Your task to perform on an android device: turn off javascript in the chrome app Image 0: 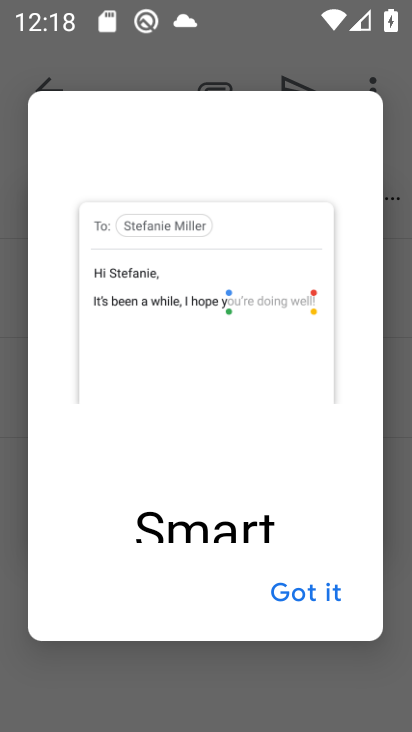
Step 0: press home button
Your task to perform on an android device: turn off javascript in the chrome app Image 1: 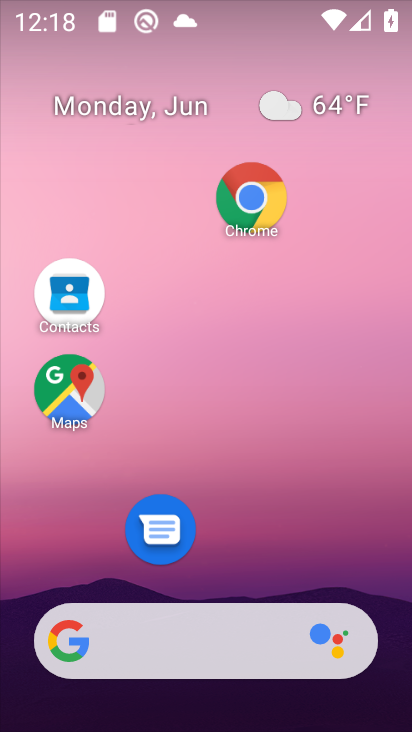
Step 1: click (246, 197)
Your task to perform on an android device: turn off javascript in the chrome app Image 2: 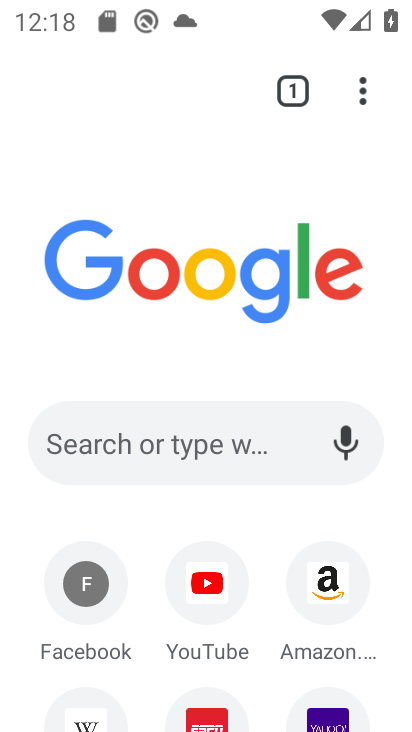
Step 2: click (353, 84)
Your task to perform on an android device: turn off javascript in the chrome app Image 3: 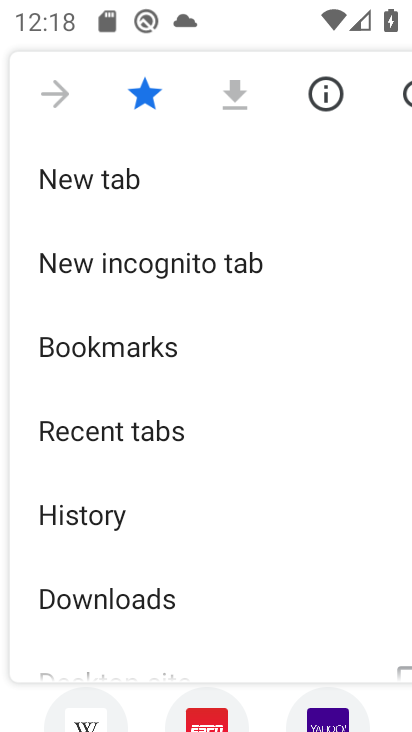
Step 3: drag from (222, 563) to (259, 93)
Your task to perform on an android device: turn off javascript in the chrome app Image 4: 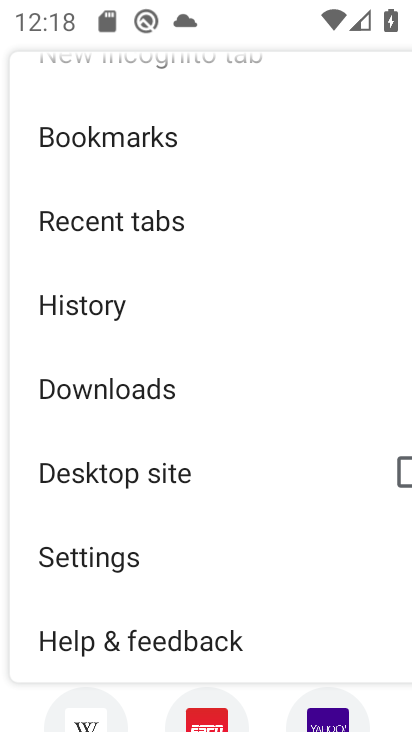
Step 4: click (77, 542)
Your task to perform on an android device: turn off javascript in the chrome app Image 5: 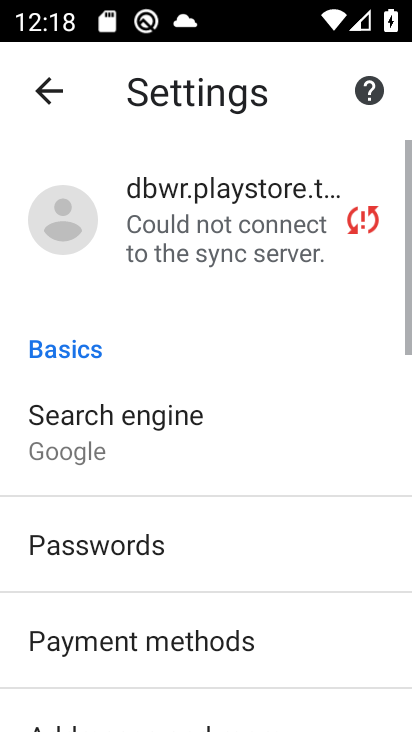
Step 5: drag from (188, 602) to (272, 233)
Your task to perform on an android device: turn off javascript in the chrome app Image 6: 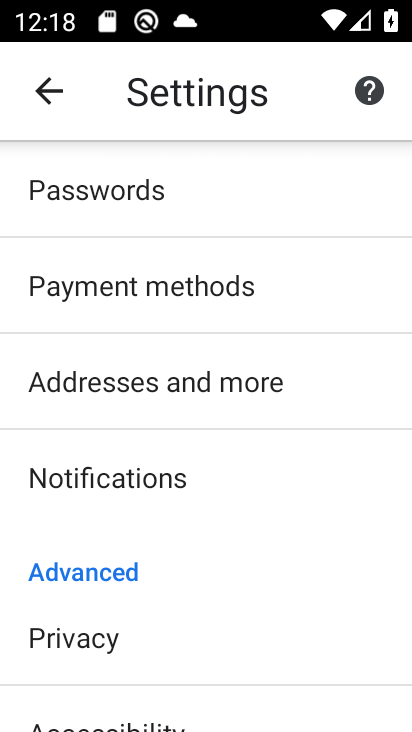
Step 6: drag from (179, 680) to (195, 421)
Your task to perform on an android device: turn off javascript in the chrome app Image 7: 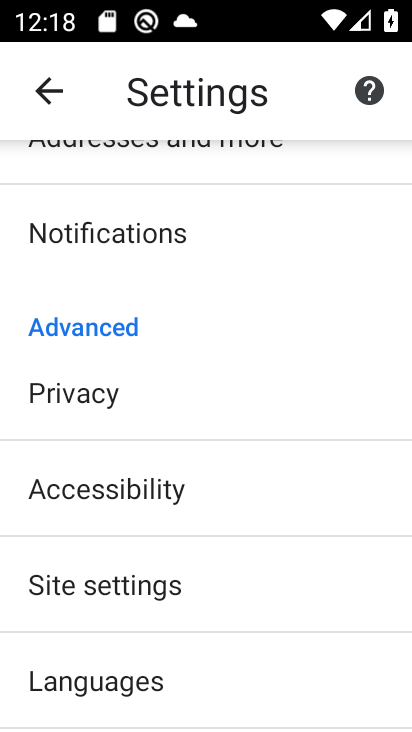
Step 7: click (118, 606)
Your task to perform on an android device: turn off javascript in the chrome app Image 8: 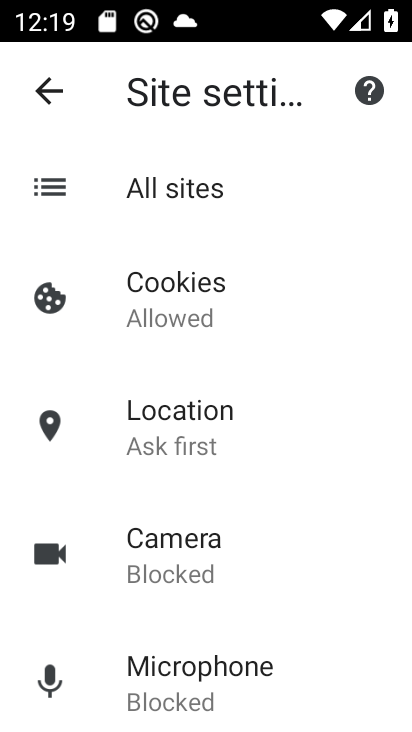
Step 8: drag from (219, 664) to (246, 297)
Your task to perform on an android device: turn off javascript in the chrome app Image 9: 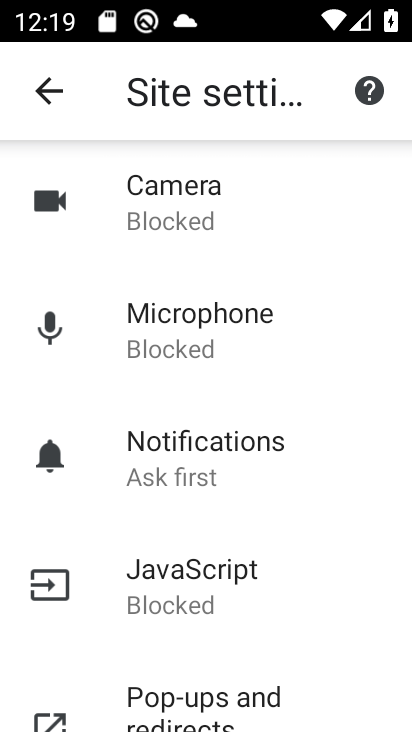
Step 9: click (158, 603)
Your task to perform on an android device: turn off javascript in the chrome app Image 10: 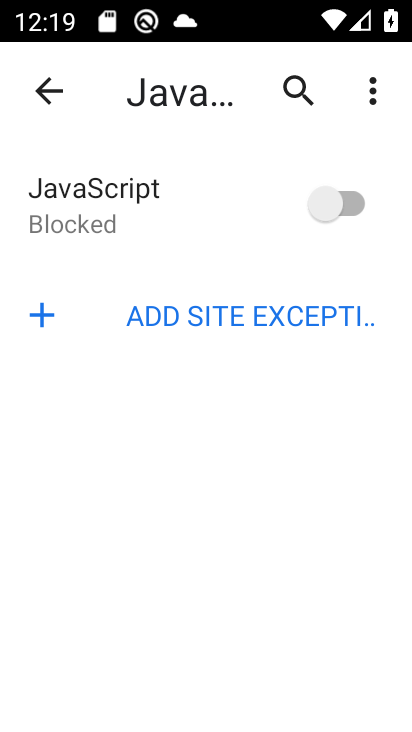
Step 10: task complete